Your task to perform on an android device: Toggle the flashlight Image 0: 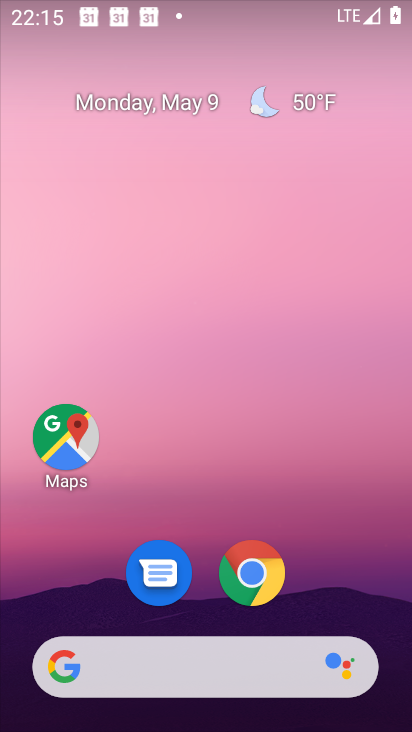
Step 0: drag from (231, 0) to (241, 479)
Your task to perform on an android device: Toggle the flashlight Image 1: 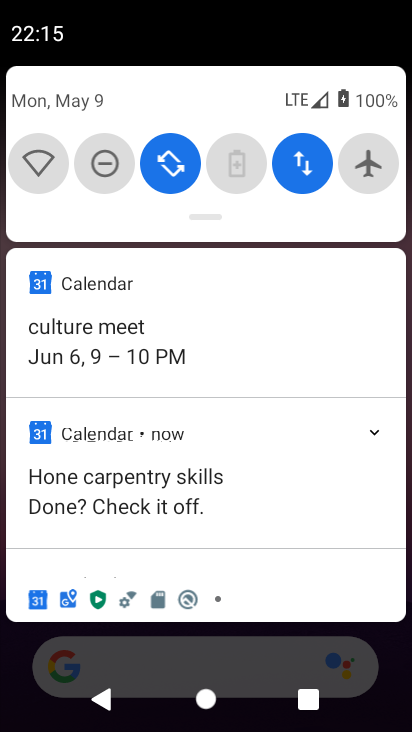
Step 1: task complete